Your task to perform on an android device: allow cookies in the chrome app Image 0: 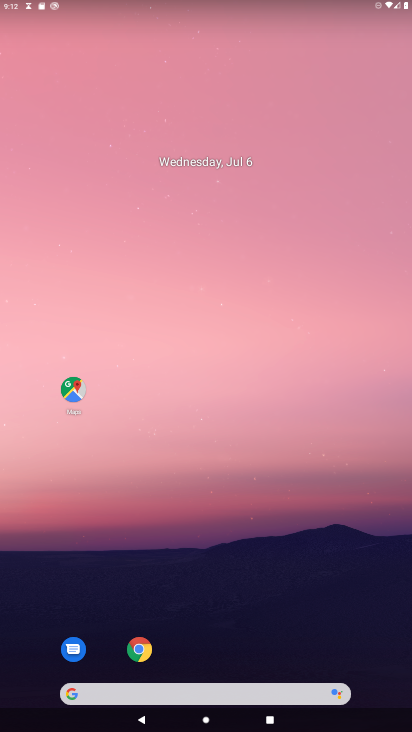
Step 0: drag from (317, 715) to (288, 373)
Your task to perform on an android device: allow cookies in the chrome app Image 1: 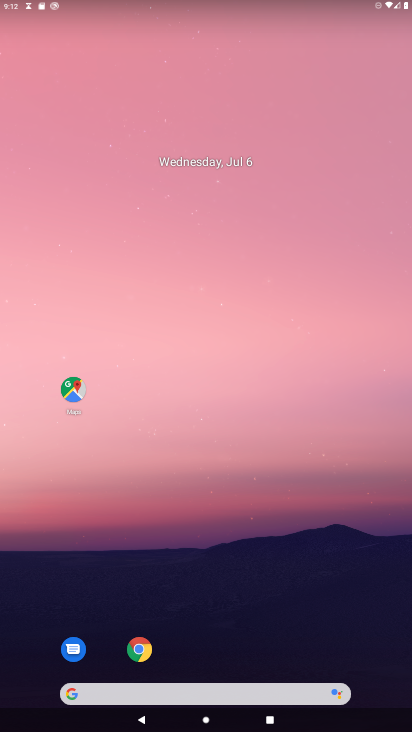
Step 1: drag from (378, 565) to (289, 282)
Your task to perform on an android device: allow cookies in the chrome app Image 2: 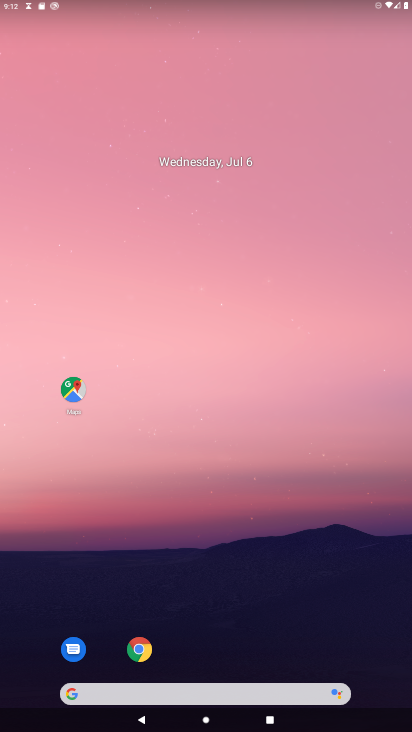
Step 2: click (188, 266)
Your task to perform on an android device: allow cookies in the chrome app Image 3: 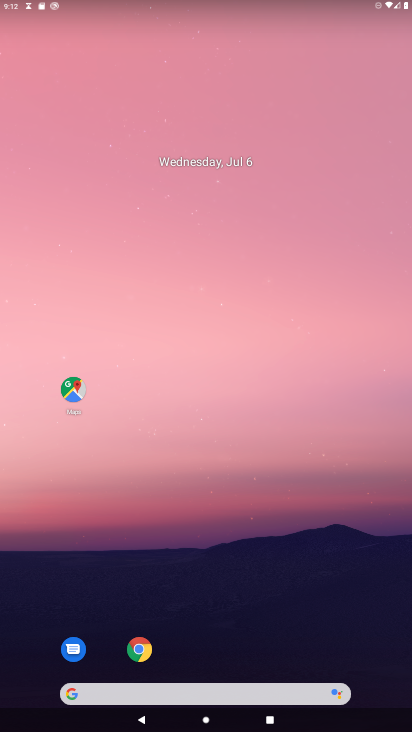
Step 3: drag from (386, 659) to (211, 194)
Your task to perform on an android device: allow cookies in the chrome app Image 4: 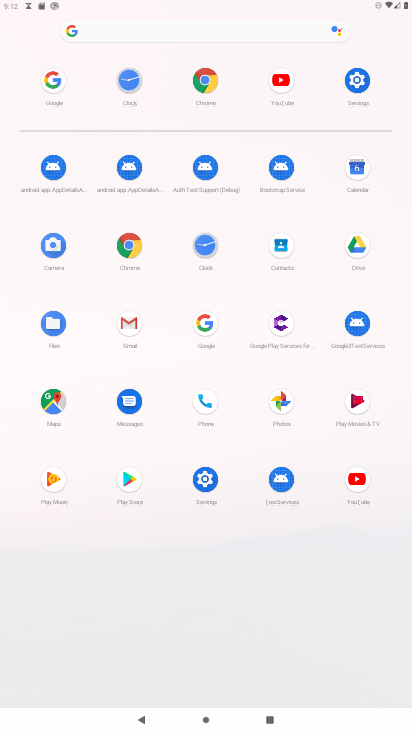
Step 4: click (125, 245)
Your task to perform on an android device: allow cookies in the chrome app Image 5: 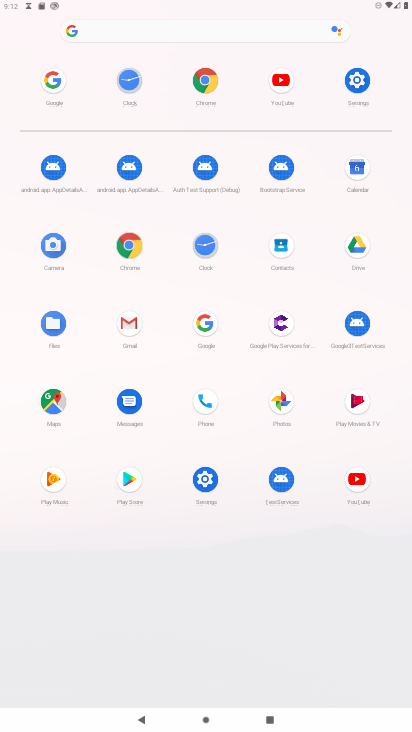
Step 5: click (126, 245)
Your task to perform on an android device: allow cookies in the chrome app Image 6: 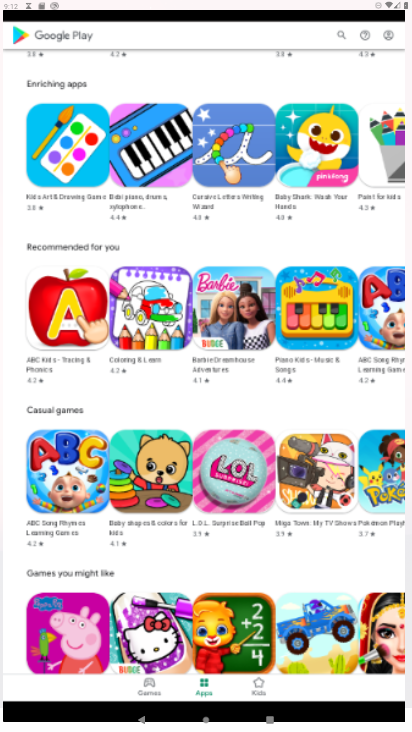
Step 6: click (128, 249)
Your task to perform on an android device: allow cookies in the chrome app Image 7: 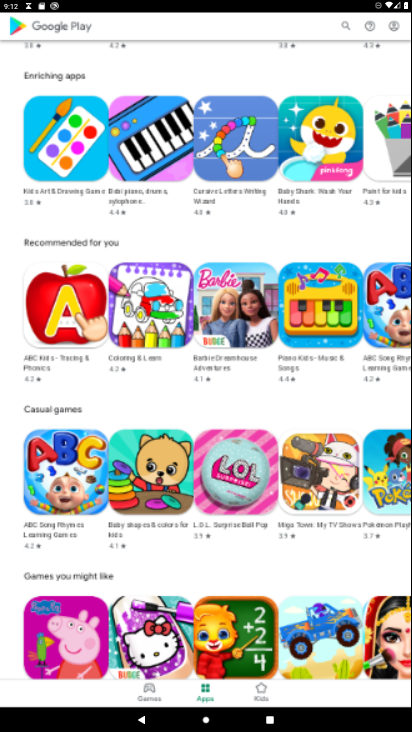
Step 7: click (157, 293)
Your task to perform on an android device: allow cookies in the chrome app Image 8: 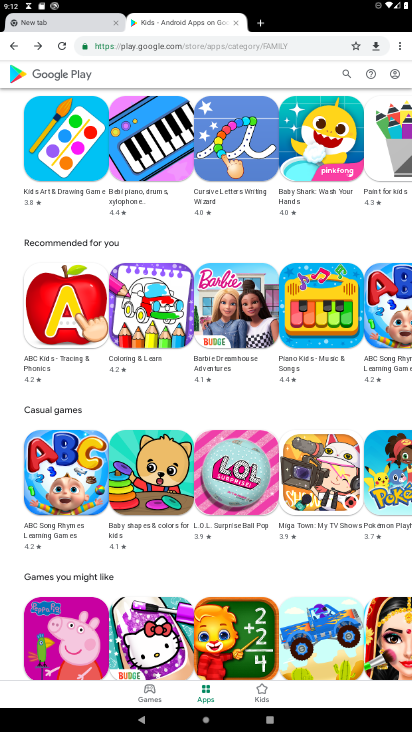
Step 8: drag from (122, 73) to (203, 523)
Your task to perform on an android device: allow cookies in the chrome app Image 9: 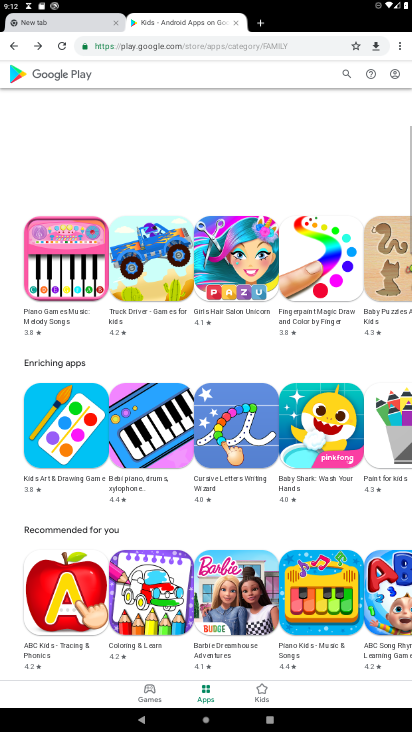
Step 9: drag from (121, 251) to (194, 622)
Your task to perform on an android device: allow cookies in the chrome app Image 10: 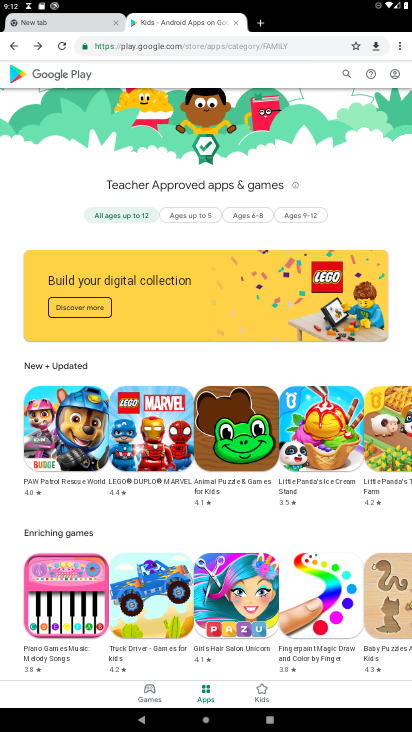
Step 10: press back button
Your task to perform on an android device: allow cookies in the chrome app Image 11: 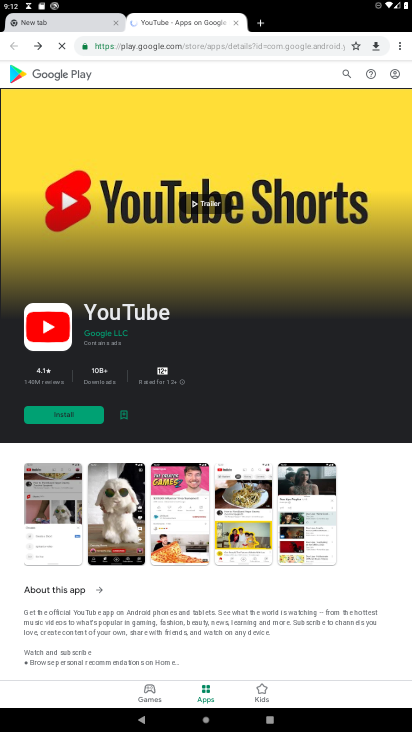
Step 11: press back button
Your task to perform on an android device: allow cookies in the chrome app Image 12: 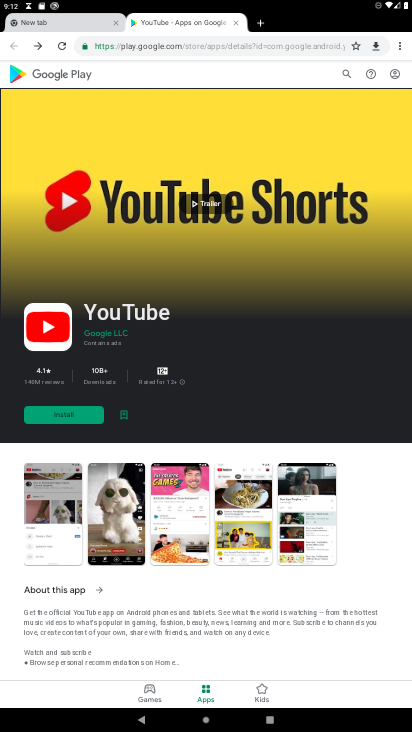
Step 12: press back button
Your task to perform on an android device: allow cookies in the chrome app Image 13: 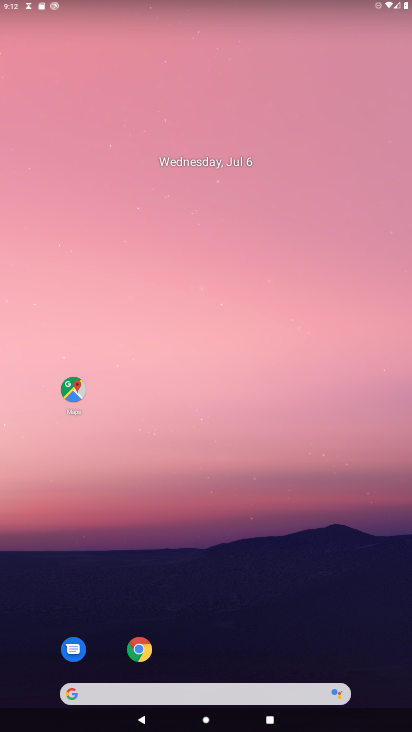
Step 13: drag from (226, 659) to (150, 166)
Your task to perform on an android device: allow cookies in the chrome app Image 14: 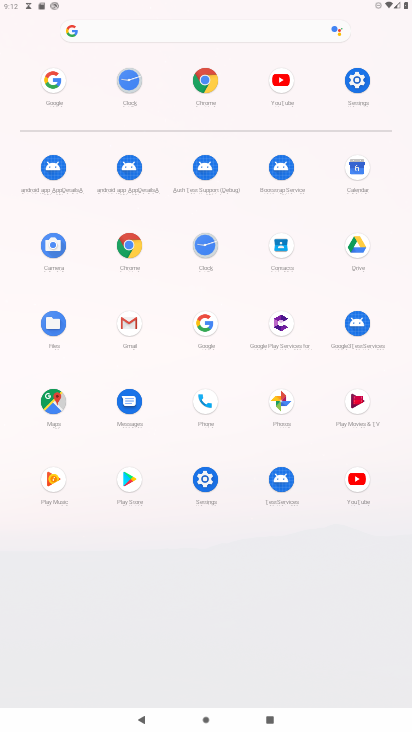
Step 14: click (118, 259)
Your task to perform on an android device: allow cookies in the chrome app Image 15: 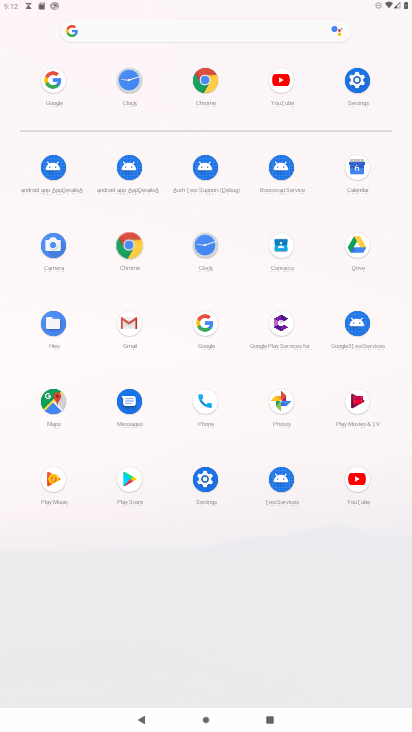
Step 15: click (118, 259)
Your task to perform on an android device: allow cookies in the chrome app Image 16: 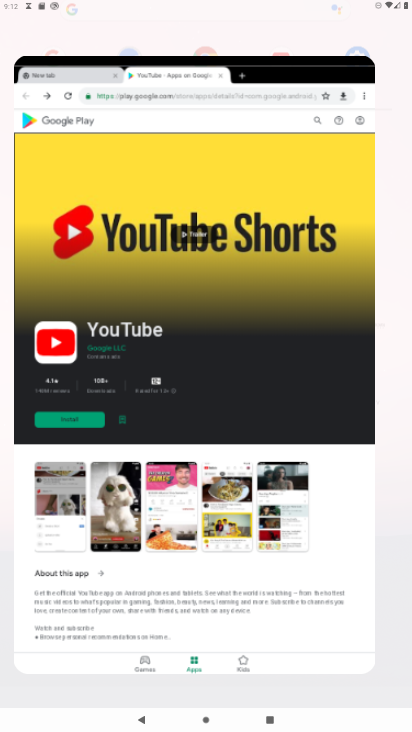
Step 16: click (123, 261)
Your task to perform on an android device: allow cookies in the chrome app Image 17: 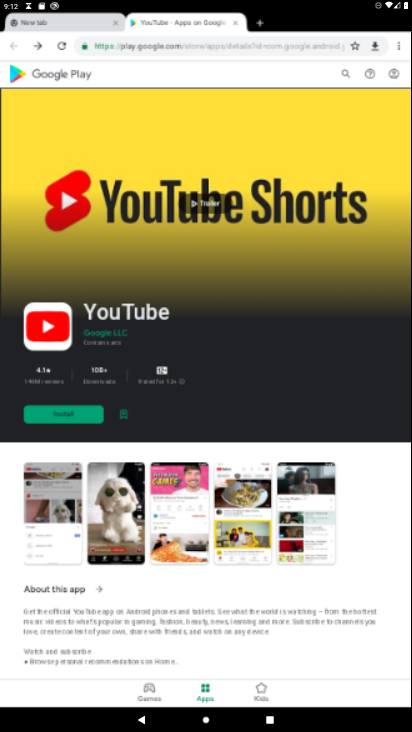
Step 17: click (132, 265)
Your task to perform on an android device: allow cookies in the chrome app Image 18: 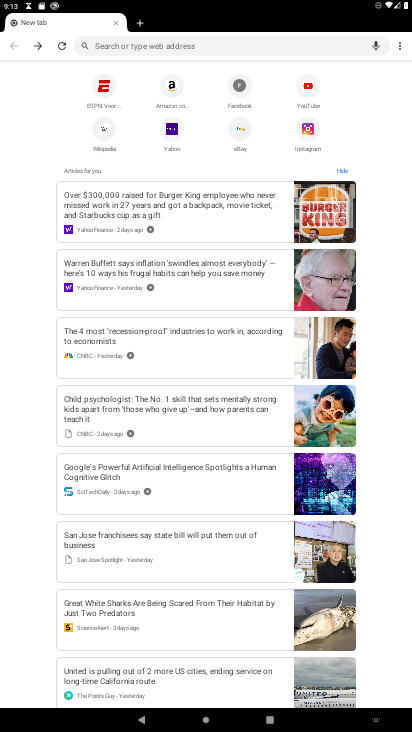
Step 18: drag from (400, 48) to (296, 214)
Your task to perform on an android device: allow cookies in the chrome app Image 19: 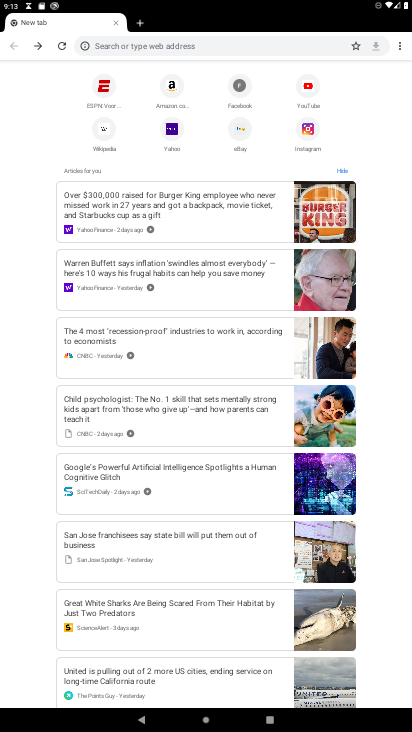
Step 19: click (297, 211)
Your task to perform on an android device: allow cookies in the chrome app Image 20: 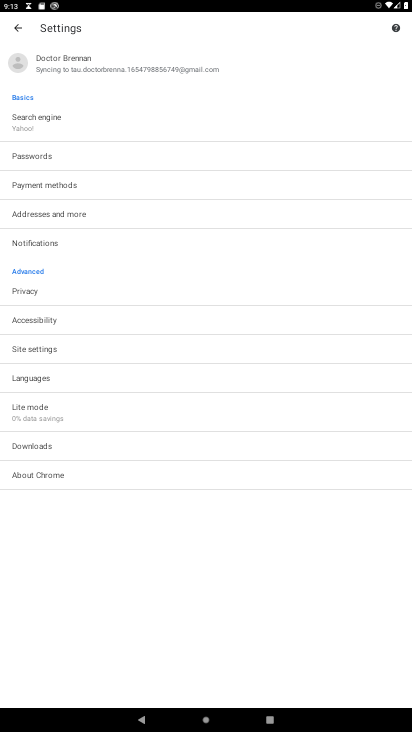
Step 20: click (79, 351)
Your task to perform on an android device: allow cookies in the chrome app Image 21: 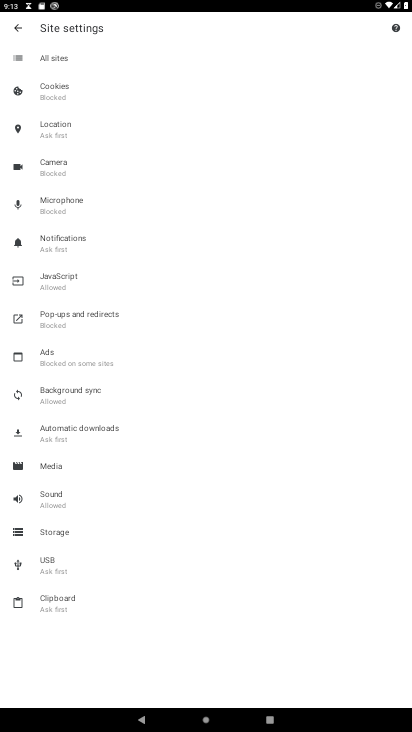
Step 21: click (61, 93)
Your task to perform on an android device: allow cookies in the chrome app Image 22: 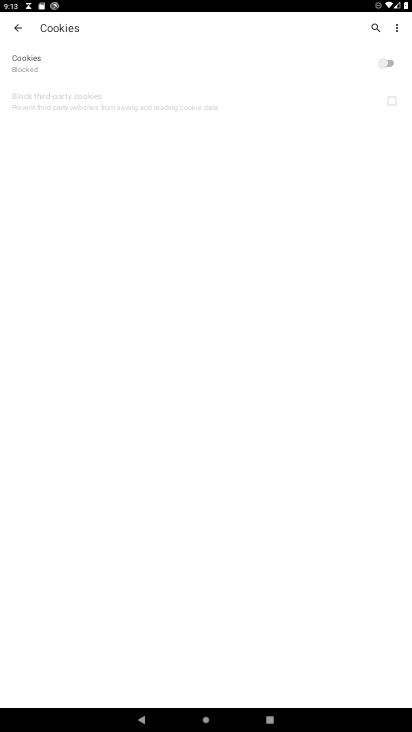
Step 22: click (381, 60)
Your task to perform on an android device: allow cookies in the chrome app Image 23: 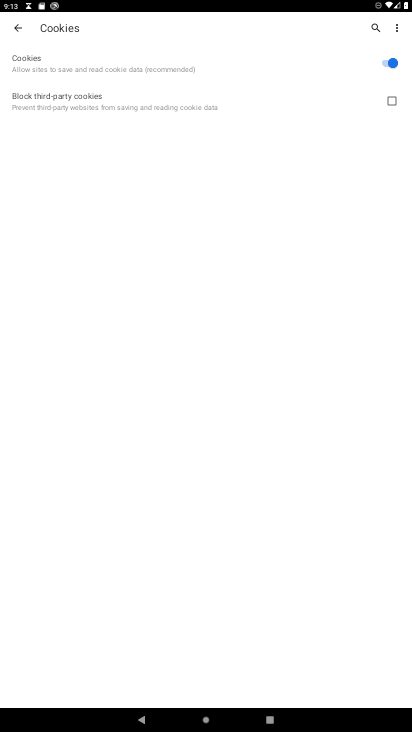
Step 23: task complete